Your task to perform on an android device: Open calendar and show me the first week of next month Image 0: 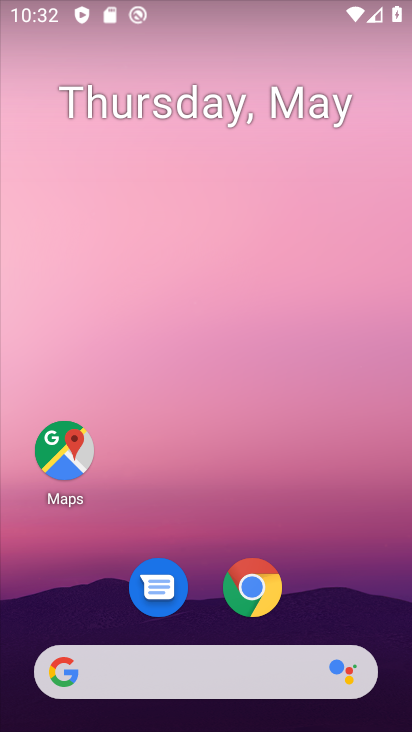
Step 0: drag from (310, 517) to (276, 249)
Your task to perform on an android device: Open calendar and show me the first week of next month Image 1: 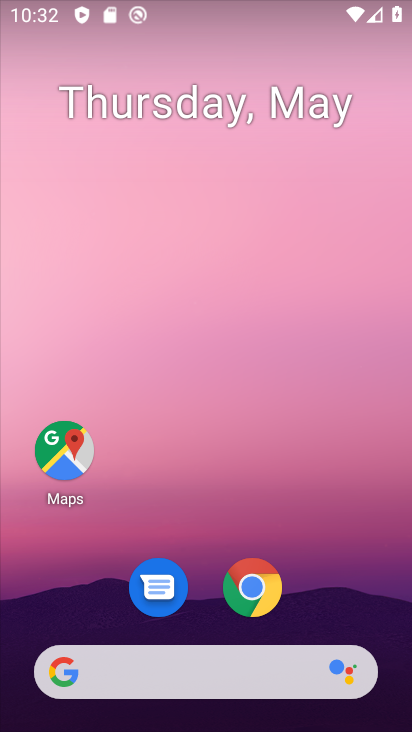
Step 1: drag from (345, 626) to (286, 216)
Your task to perform on an android device: Open calendar and show me the first week of next month Image 2: 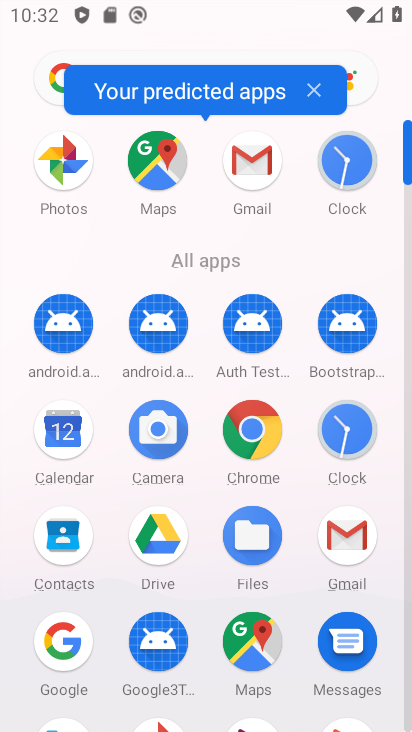
Step 2: click (62, 441)
Your task to perform on an android device: Open calendar and show me the first week of next month Image 3: 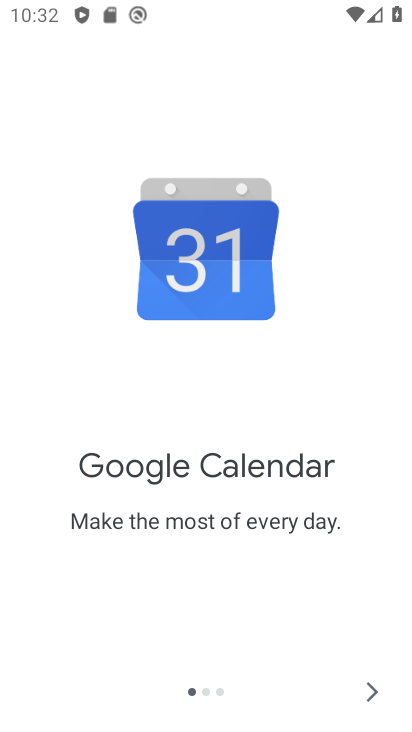
Step 3: click (373, 693)
Your task to perform on an android device: Open calendar and show me the first week of next month Image 4: 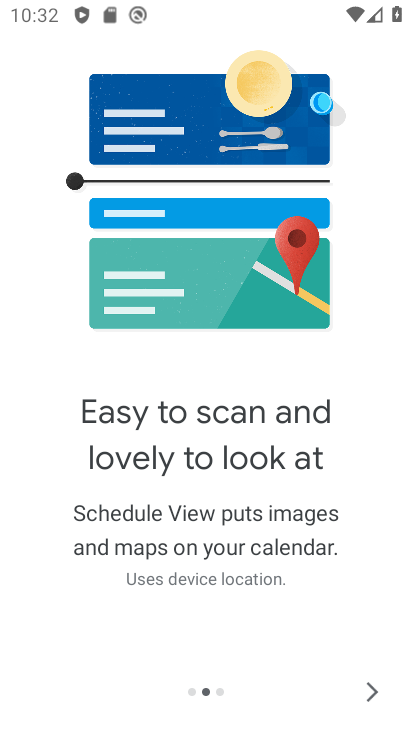
Step 4: click (373, 693)
Your task to perform on an android device: Open calendar and show me the first week of next month Image 5: 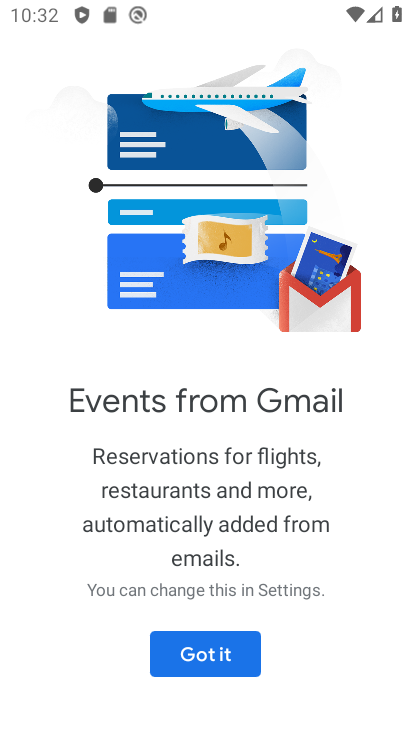
Step 5: click (216, 646)
Your task to perform on an android device: Open calendar and show me the first week of next month Image 6: 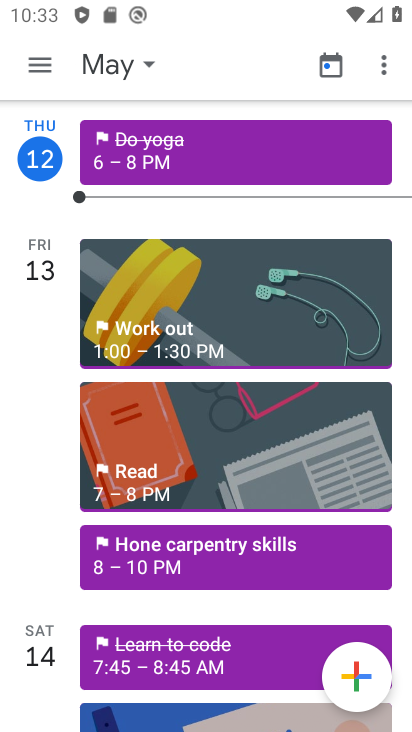
Step 6: click (34, 75)
Your task to perform on an android device: Open calendar and show me the first week of next month Image 7: 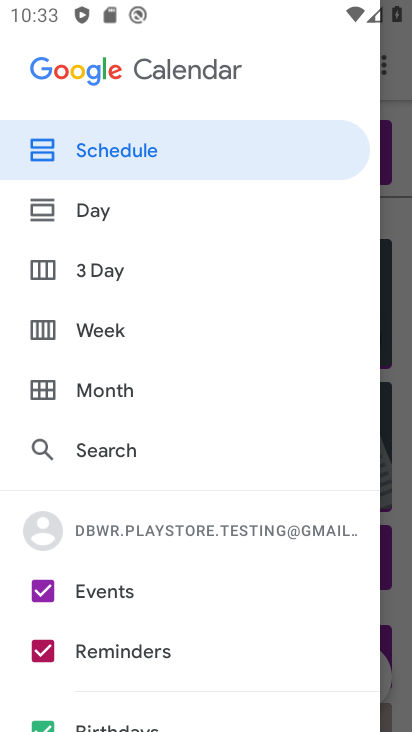
Step 7: click (130, 326)
Your task to perform on an android device: Open calendar and show me the first week of next month Image 8: 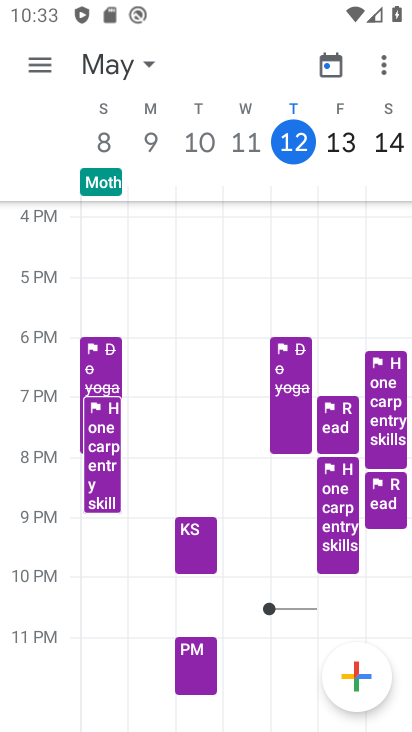
Step 8: click (152, 71)
Your task to perform on an android device: Open calendar and show me the first week of next month Image 9: 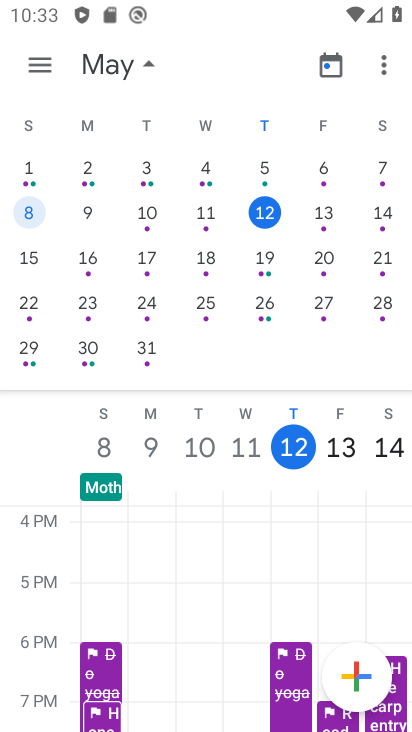
Step 9: drag from (319, 240) to (0, 232)
Your task to perform on an android device: Open calendar and show me the first week of next month Image 10: 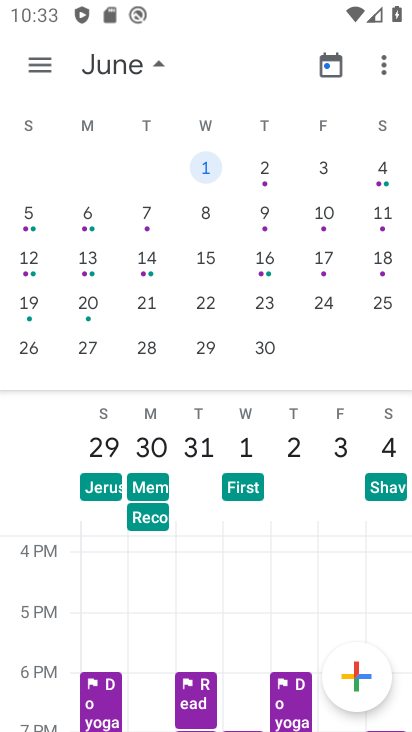
Step 10: click (85, 216)
Your task to perform on an android device: Open calendar and show me the first week of next month Image 11: 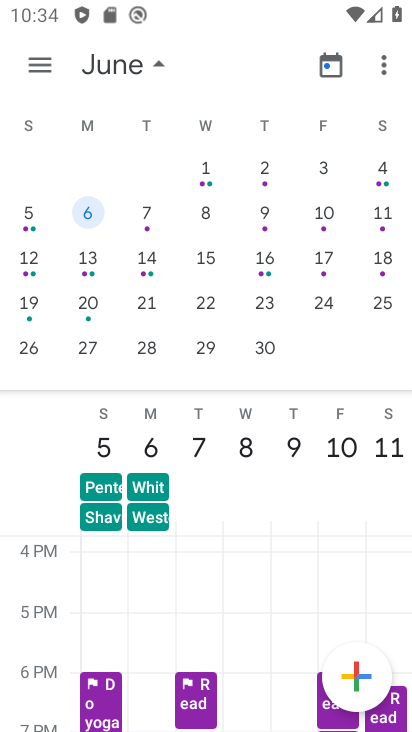
Step 11: task complete